Your task to perform on an android device: toggle pop-ups in chrome Image 0: 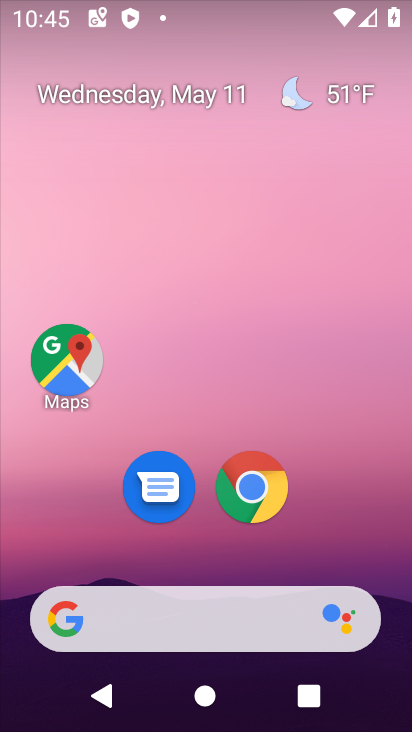
Step 0: click (243, 462)
Your task to perform on an android device: toggle pop-ups in chrome Image 1: 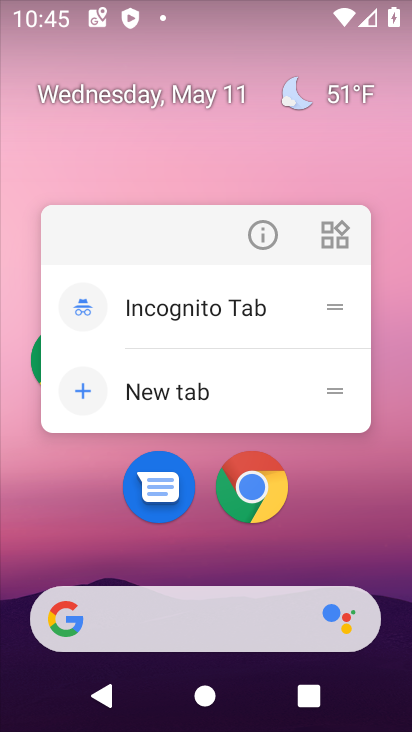
Step 1: click (246, 483)
Your task to perform on an android device: toggle pop-ups in chrome Image 2: 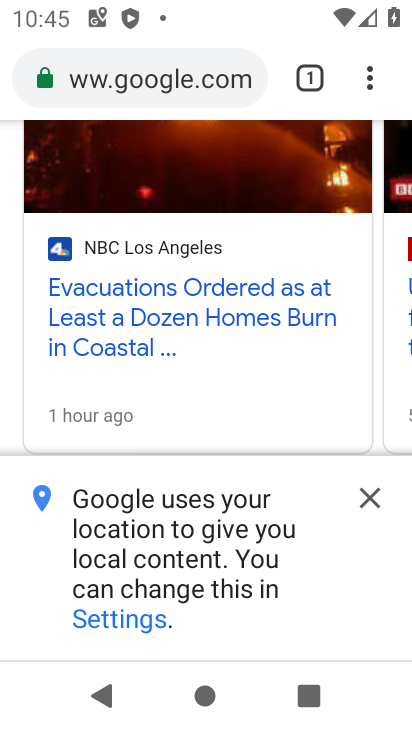
Step 2: drag from (373, 81) to (232, 555)
Your task to perform on an android device: toggle pop-ups in chrome Image 3: 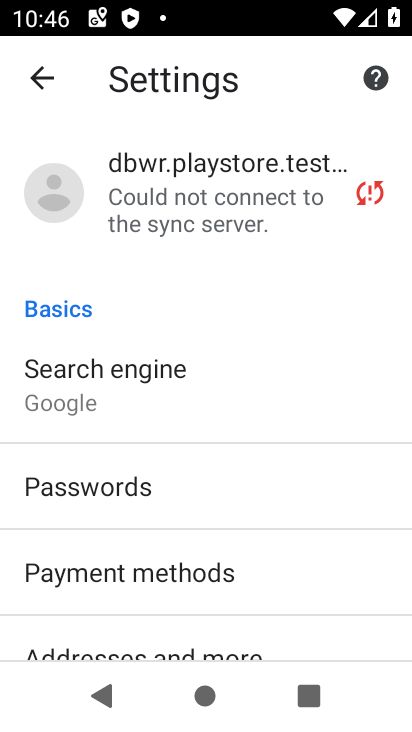
Step 3: drag from (231, 528) to (228, 218)
Your task to perform on an android device: toggle pop-ups in chrome Image 4: 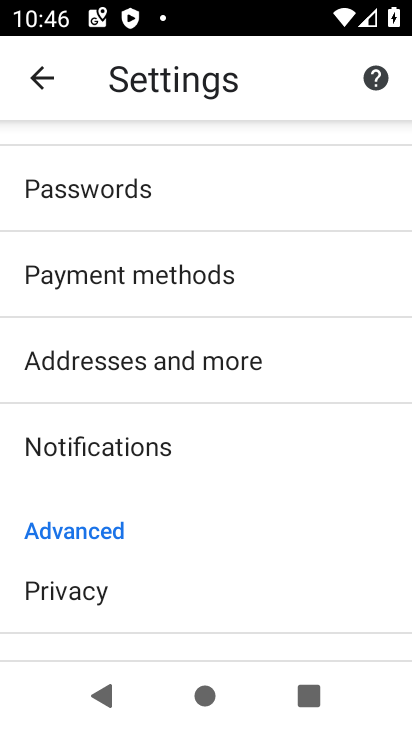
Step 4: drag from (181, 597) to (183, 213)
Your task to perform on an android device: toggle pop-ups in chrome Image 5: 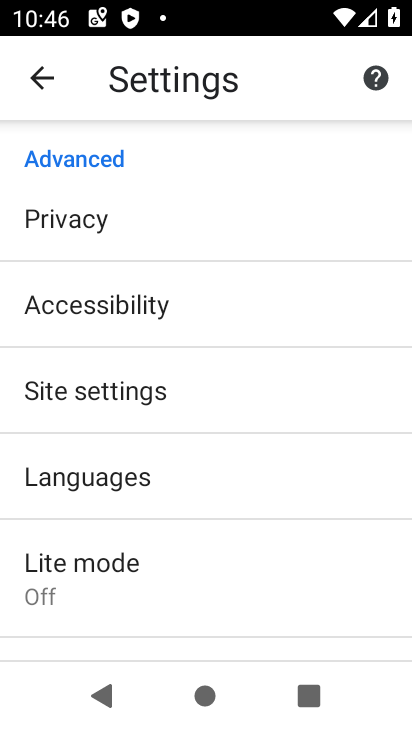
Step 5: click (148, 405)
Your task to perform on an android device: toggle pop-ups in chrome Image 6: 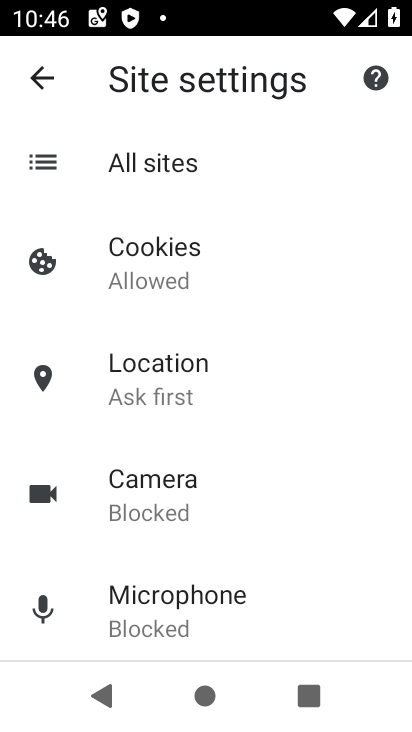
Step 6: drag from (213, 584) to (196, 266)
Your task to perform on an android device: toggle pop-ups in chrome Image 7: 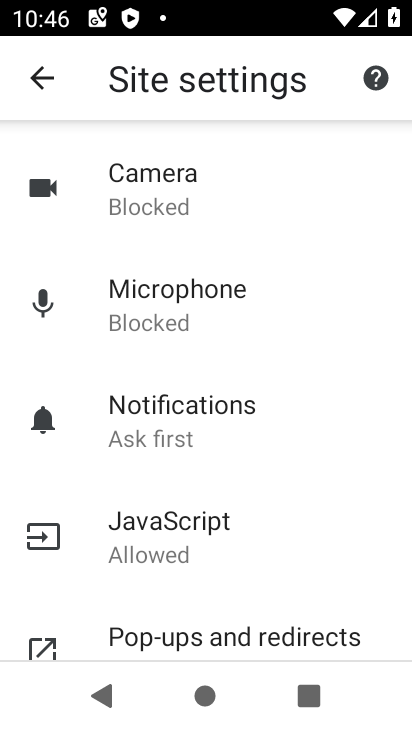
Step 7: drag from (286, 571) to (266, 418)
Your task to perform on an android device: toggle pop-ups in chrome Image 8: 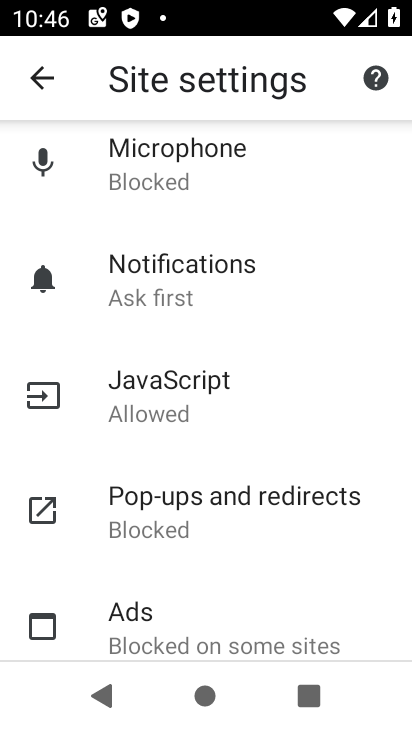
Step 8: click (259, 519)
Your task to perform on an android device: toggle pop-ups in chrome Image 9: 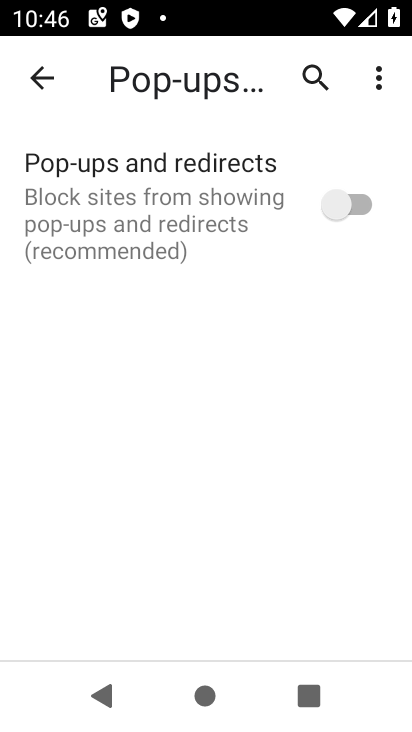
Step 9: click (350, 209)
Your task to perform on an android device: toggle pop-ups in chrome Image 10: 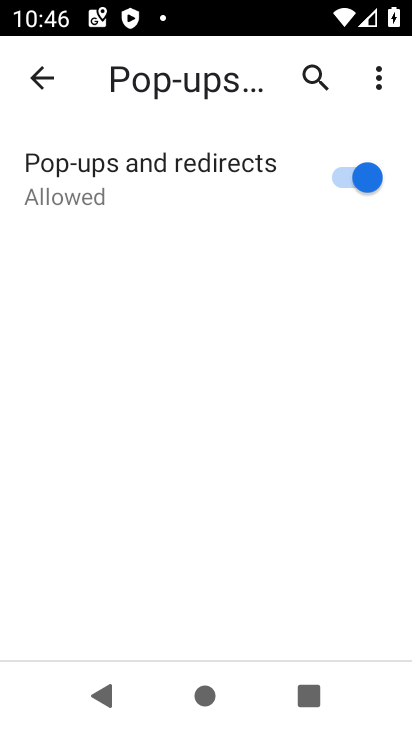
Step 10: task complete